Your task to perform on an android device: What's on my calendar today? Image 0: 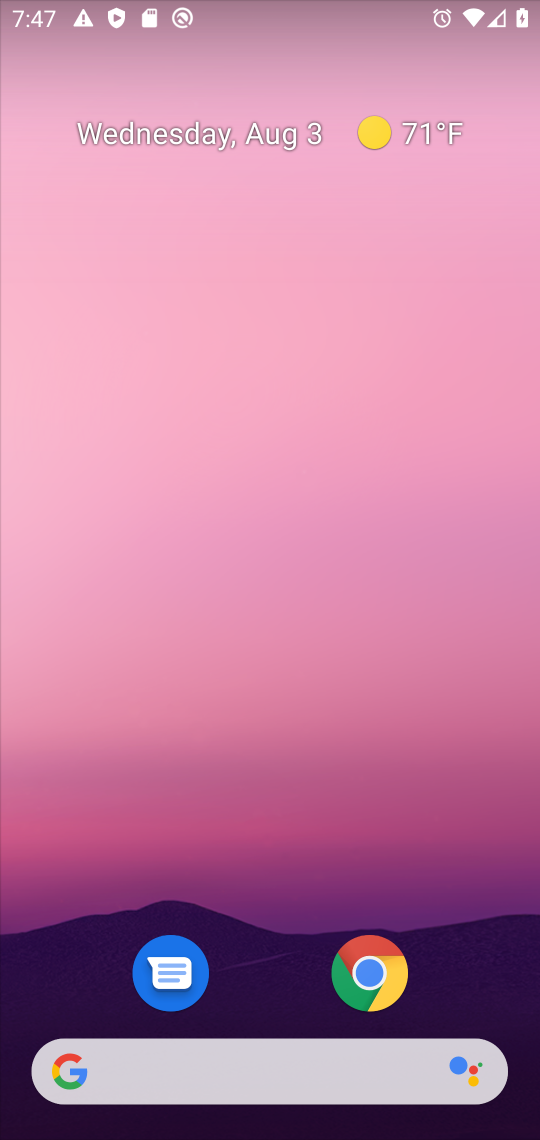
Step 0: drag from (347, 136) to (302, 73)
Your task to perform on an android device: What's on my calendar today? Image 1: 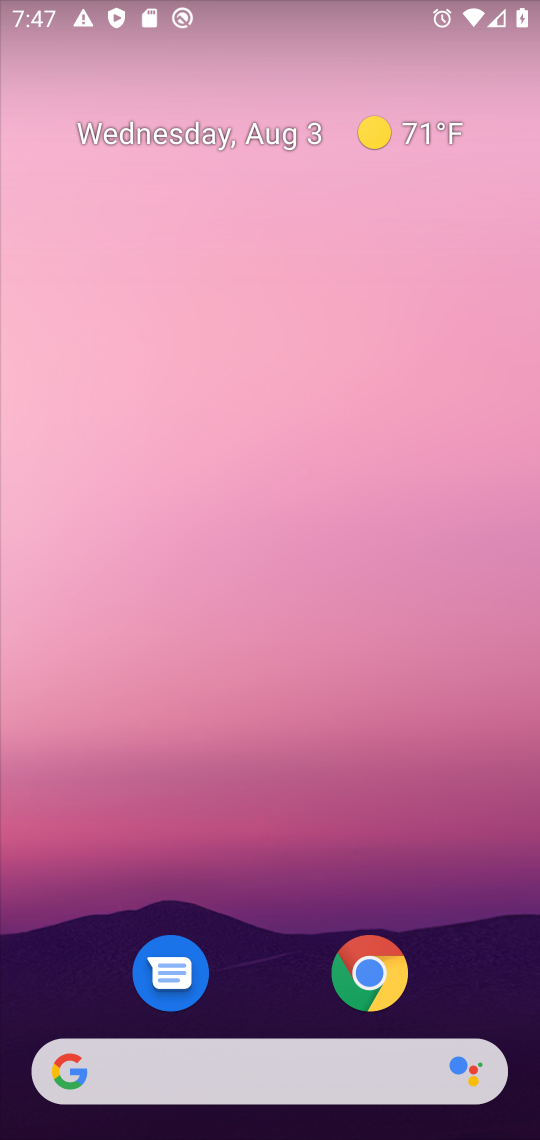
Step 1: drag from (227, 723) to (240, 140)
Your task to perform on an android device: What's on my calendar today? Image 2: 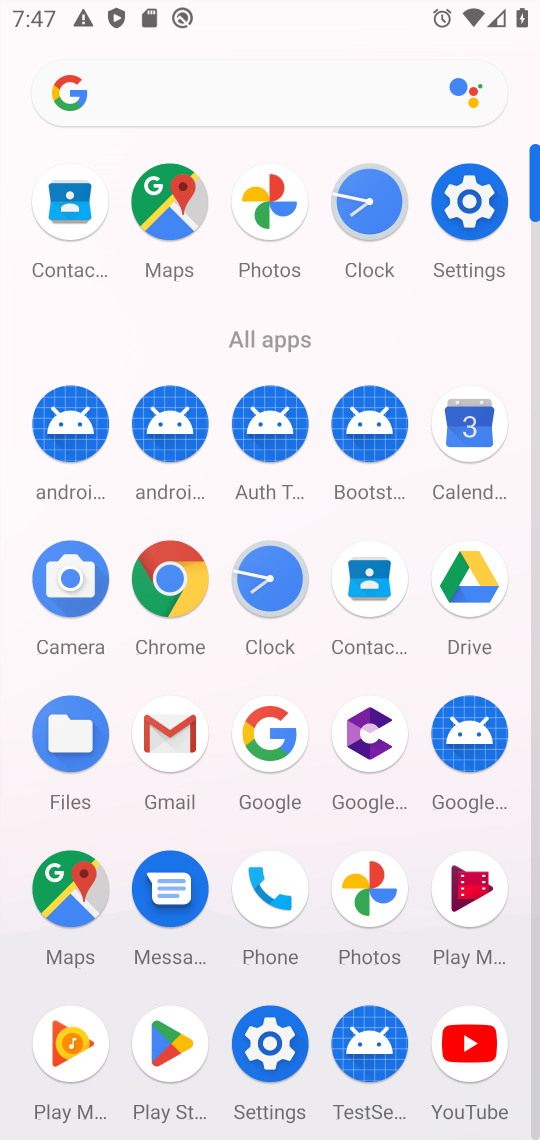
Step 2: click (434, 495)
Your task to perform on an android device: What's on my calendar today? Image 3: 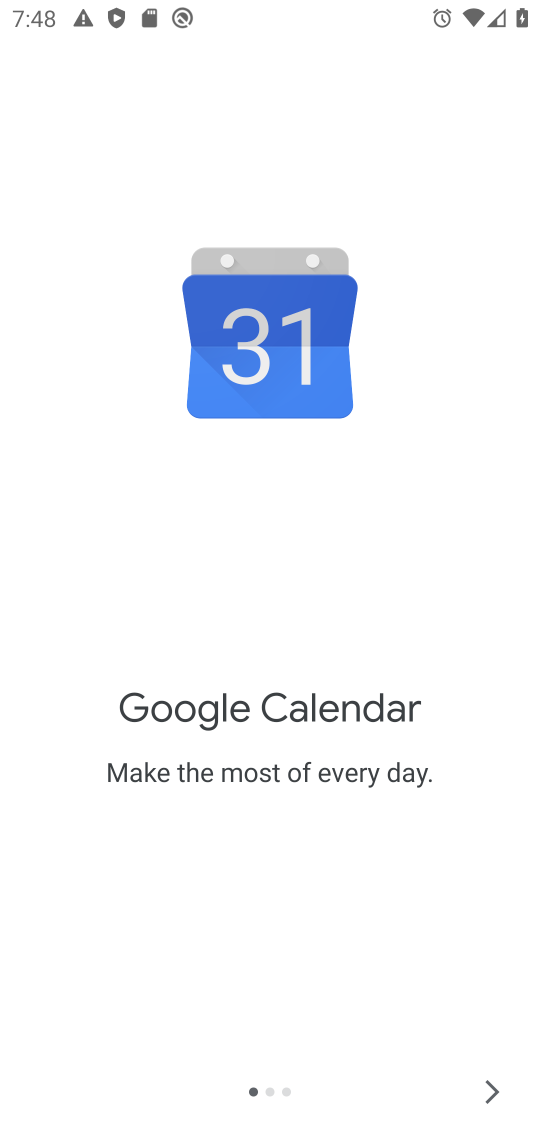
Step 3: click (492, 1092)
Your task to perform on an android device: What's on my calendar today? Image 4: 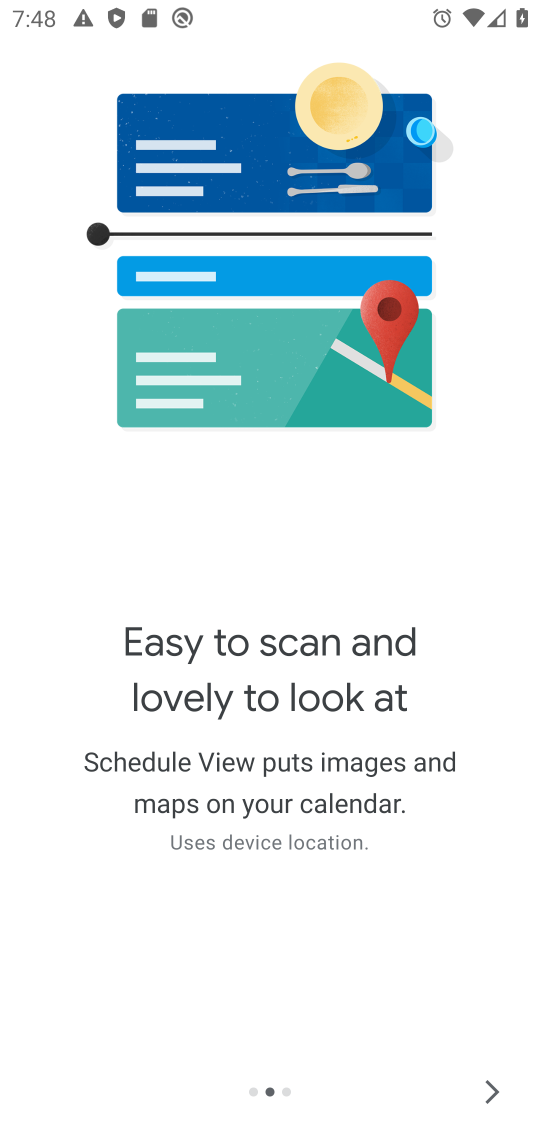
Step 4: click (492, 1092)
Your task to perform on an android device: What's on my calendar today? Image 5: 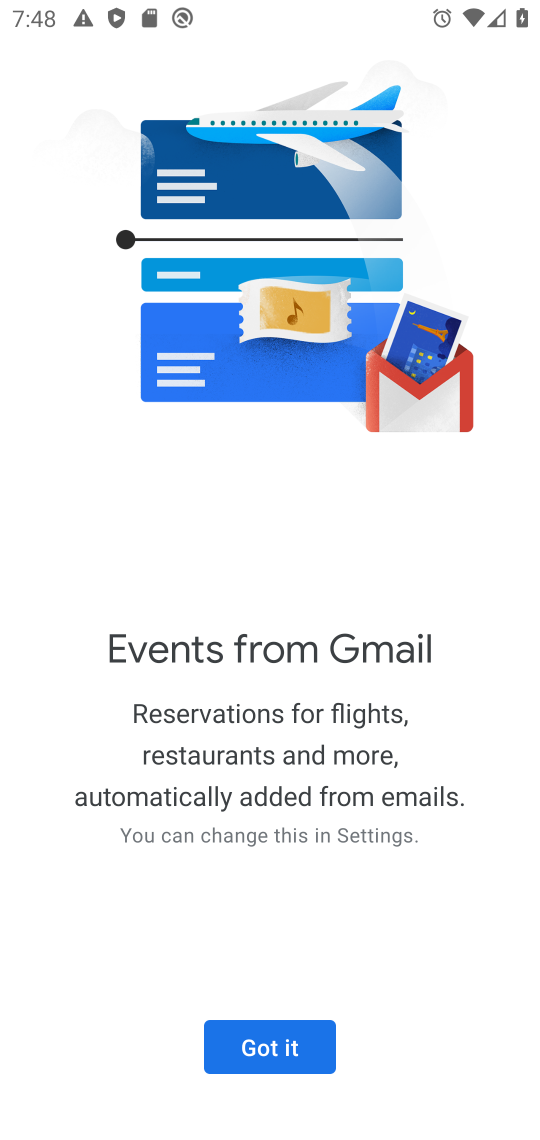
Step 5: click (492, 1092)
Your task to perform on an android device: What's on my calendar today? Image 6: 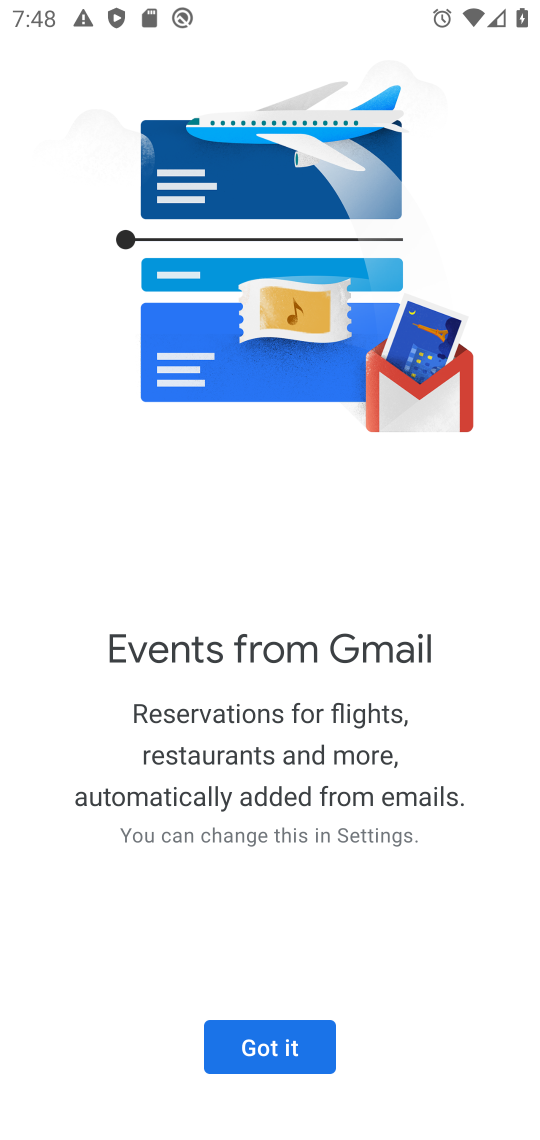
Step 6: click (251, 1043)
Your task to perform on an android device: What's on my calendar today? Image 7: 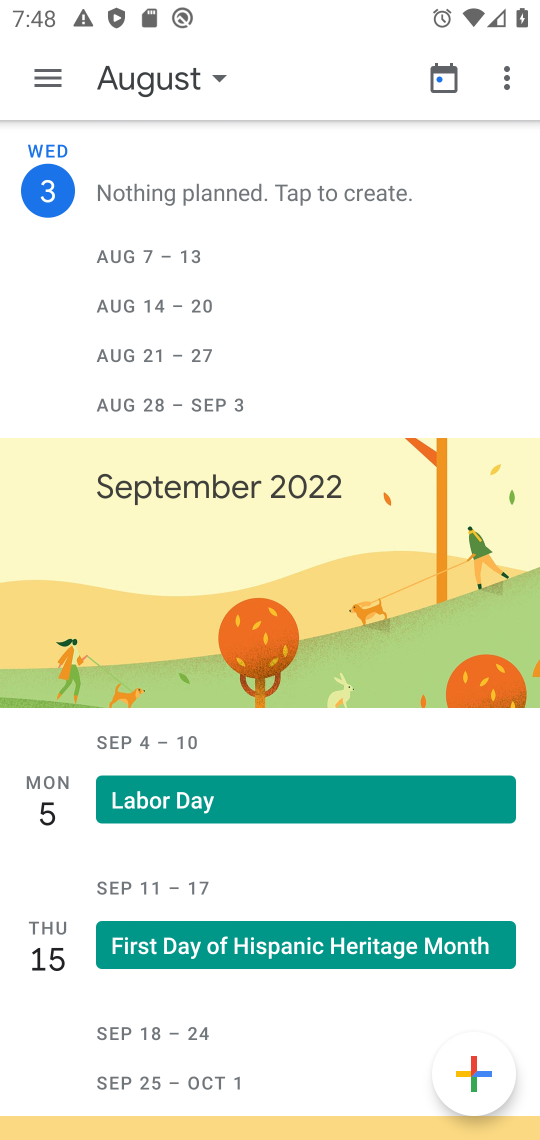
Step 7: task complete